Your task to perform on an android device: Open Google Chrome and click the shortcut for Amazon.com Image 0: 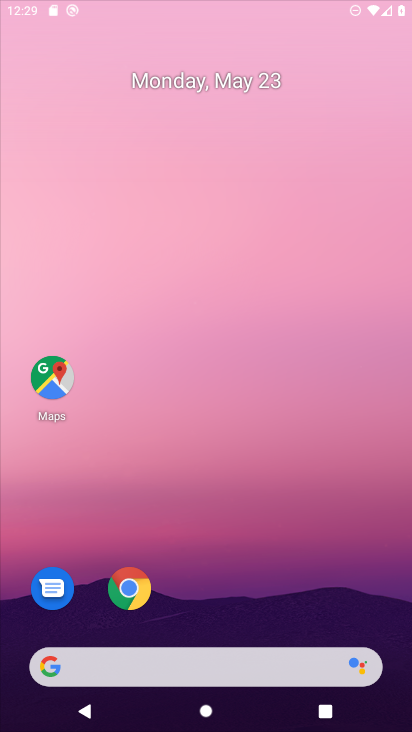
Step 0: click (171, 362)
Your task to perform on an android device: Open Google Chrome and click the shortcut for Amazon.com Image 1: 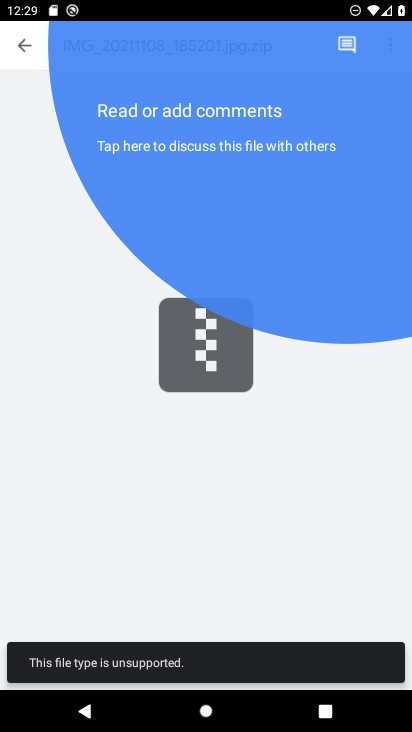
Step 1: press home button
Your task to perform on an android device: Open Google Chrome and click the shortcut for Amazon.com Image 2: 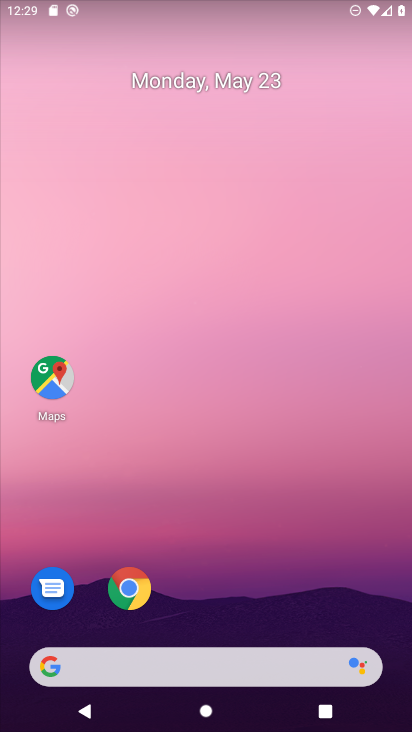
Step 2: drag from (192, 653) to (191, 266)
Your task to perform on an android device: Open Google Chrome and click the shortcut for Amazon.com Image 3: 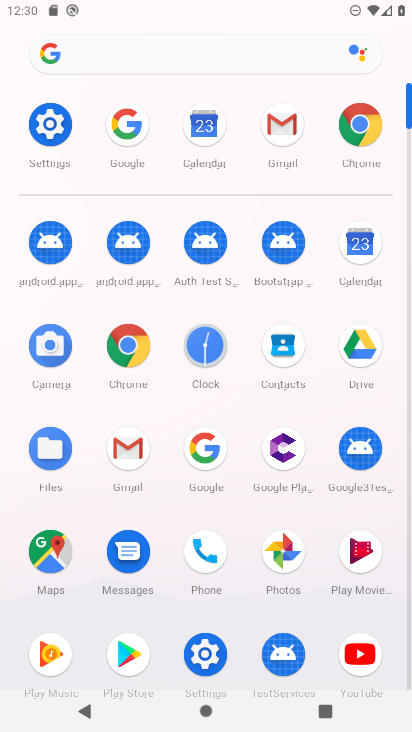
Step 3: click (355, 125)
Your task to perform on an android device: Open Google Chrome and click the shortcut for Amazon.com Image 4: 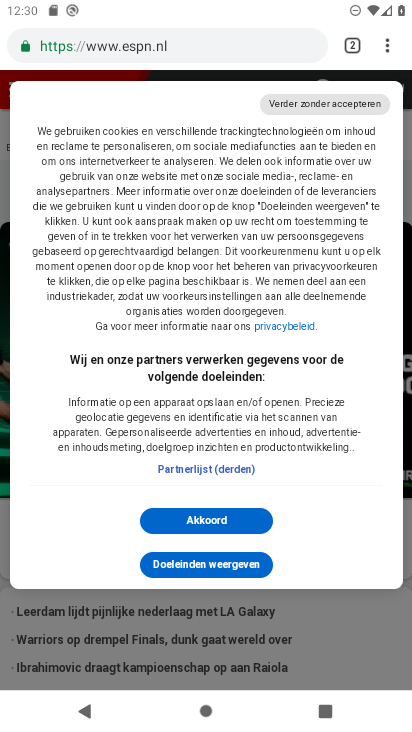
Step 4: click (359, 43)
Your task to perform on an android device: Open Google Chrome and click the shortcut for Amazon.com Image 5: 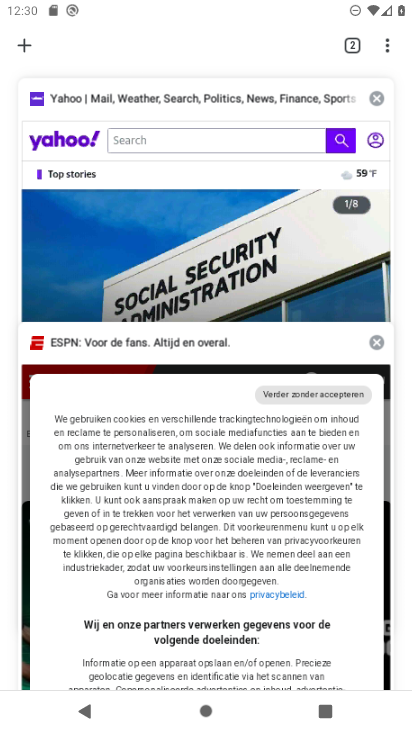
Step 5: click (375, 97)
Your task to perform on an android device: Open Google Chrome and click the shortcut for Amazon.com Image 6: 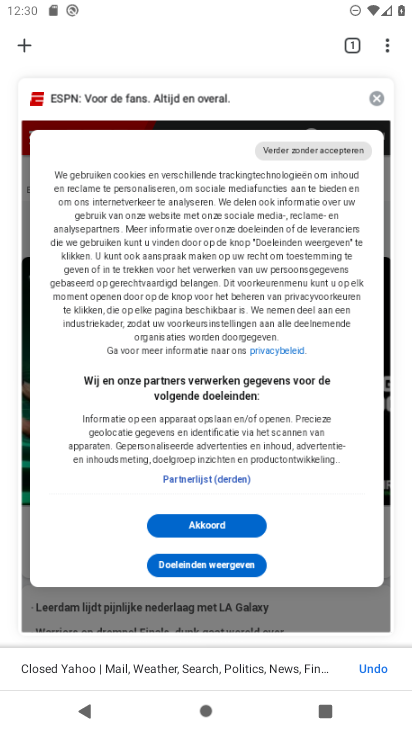
Step 6: click (375, 97)
Your task to perform on an android device: Open Google Chrome and click the shortcut for Amazon.com Image 7: 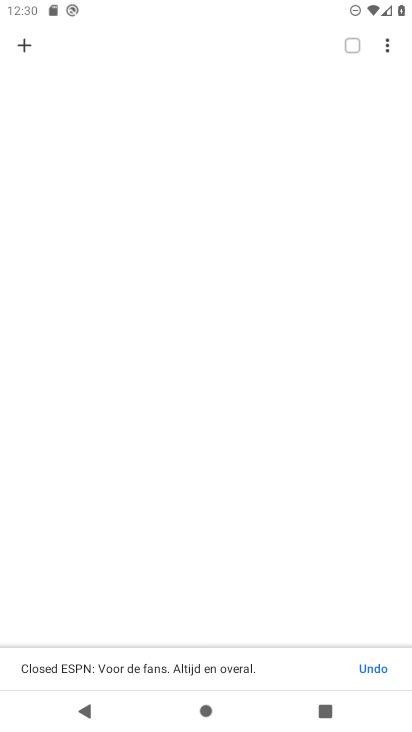
Step 7: click (19, 41)
Your task to perform on an android device: Open Google Chrome and click the shortcut for Amazon.com Image 8: 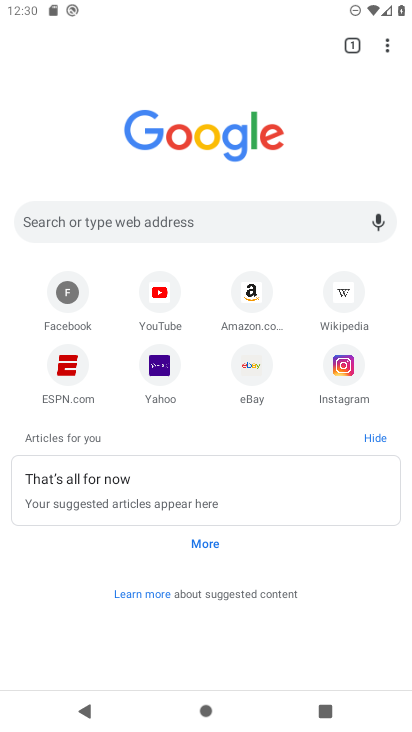
Step 8: click (246, 298)
Your task to perform on an android device: Open Google Chrome and click the shortcut for Amazon.com Image 9: 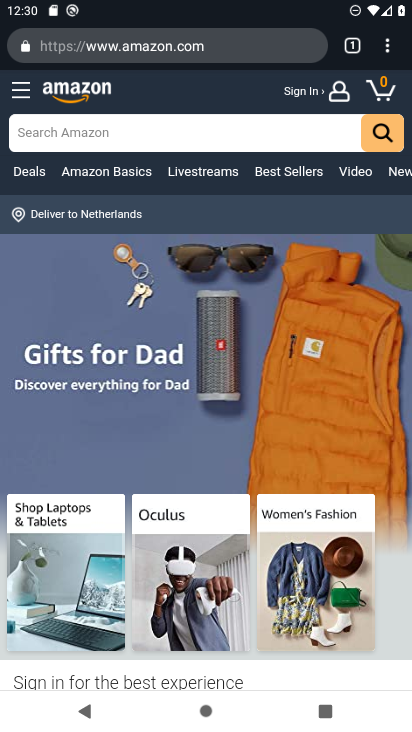
Step 9: task complete